Your task to perform on an android device: When is my next appointment? Image 0: 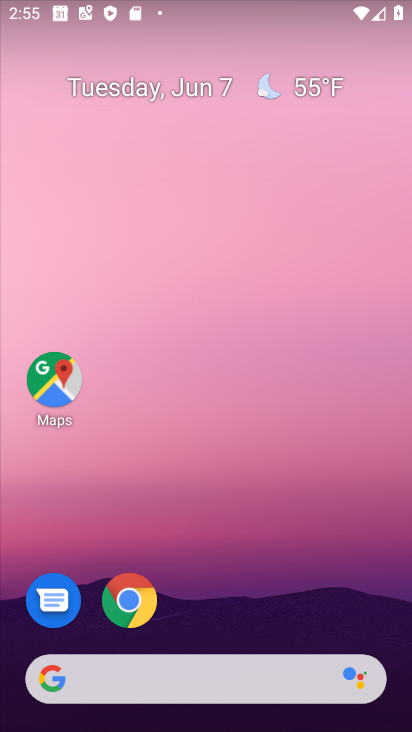
Step 0: drag from (223, 599) to (229, 202)
Your task to perform on an android device: When is my next appointment? Image 1: 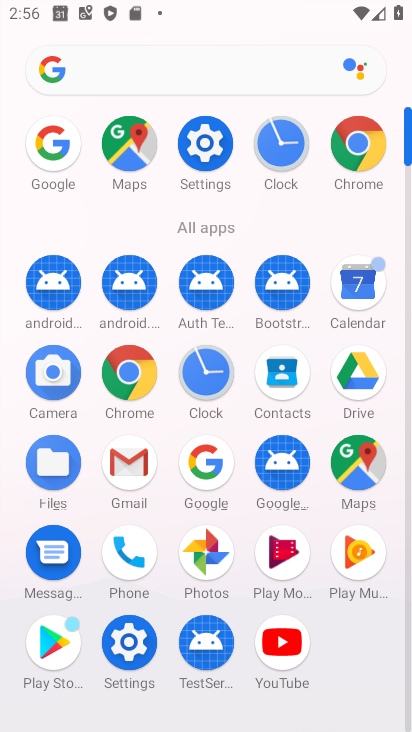
Step 1: click (349, 308)
Your task to perform on an android device: When is my next appointment? Image 2: 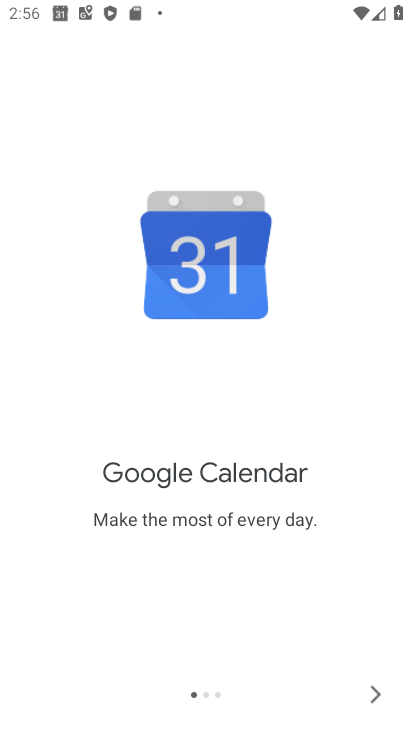
Step 2: click (375, 692)
Your task to perform on an android device: When is my next appointment? Image 3: 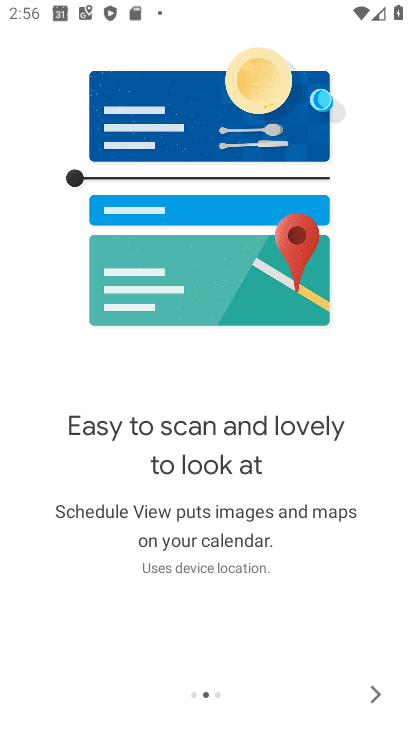
Step 3: click (375, 692)
Your task to perform on an android device: When is my next appointment? Image 4: 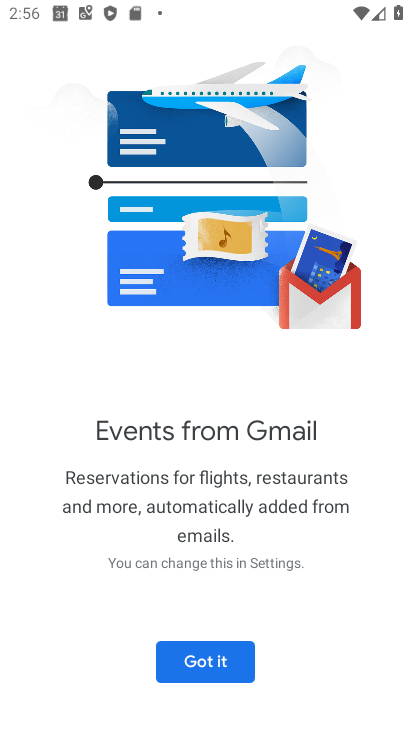
Step 4: click (175, 657)
Your task to perform on an android device: When is my next appointment? Image 5: 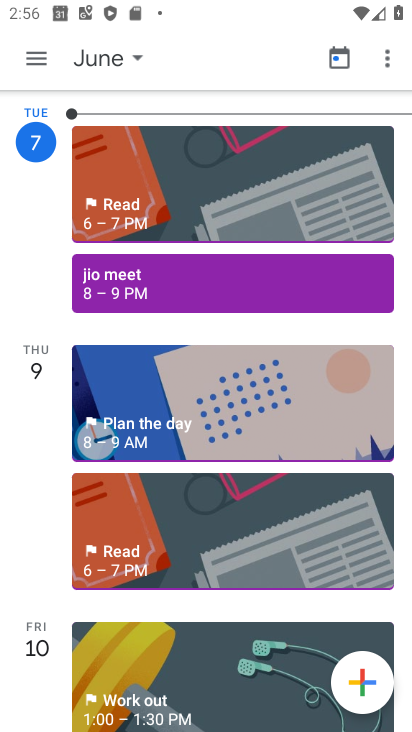
Step 5: task complete